Your task to perform on an android device: Go to battery settings Image 0: 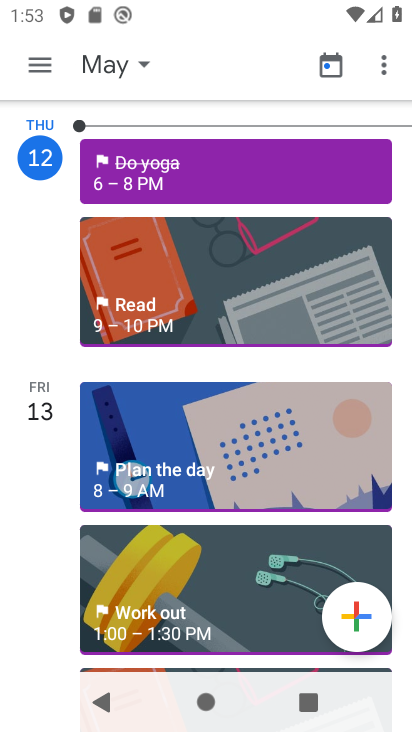
Step 0: press home button
Your task to perform on an android device: Go to battery settings Image 1: 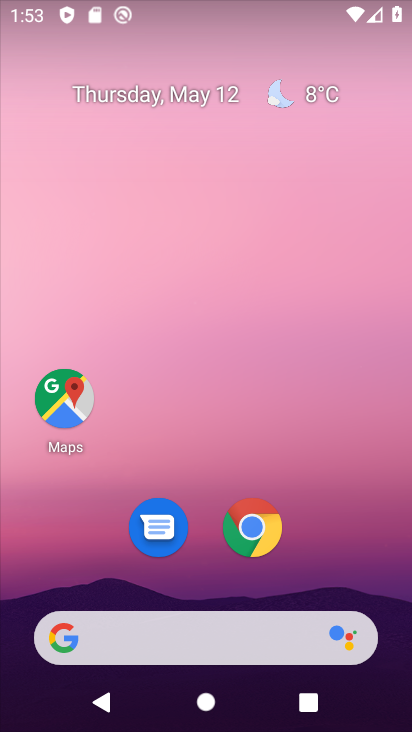
Step 1: drag from (74, 602) to (232, 82)
Your task to perform on an android device: Go to battery settings Image 2: 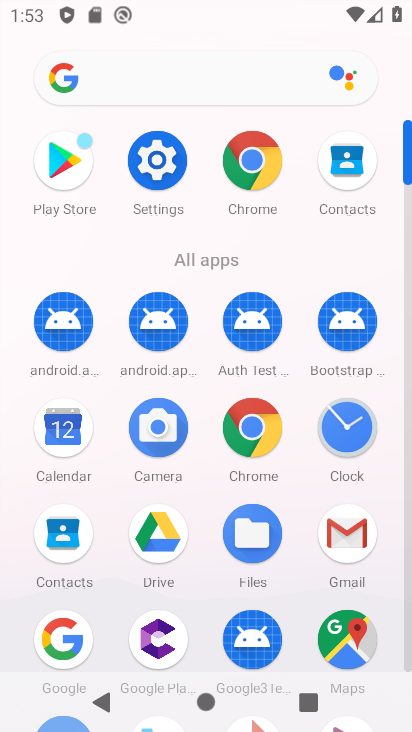
Step 2: drag from (195, 657) to (233, 394)
Your task to perform on an android device: Go to battery settings Image 3: 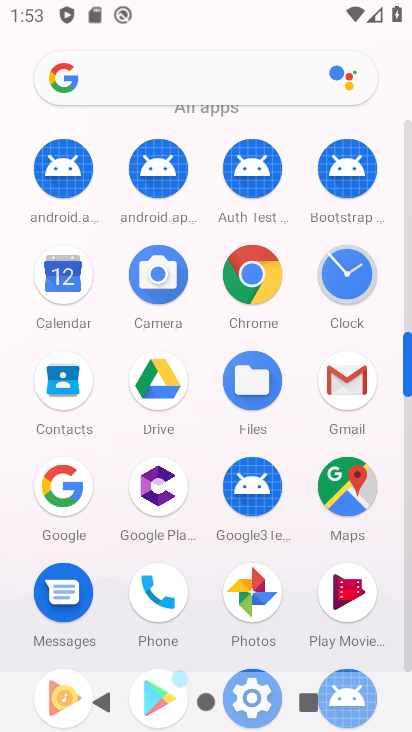
Step 3: drag from (258, 661) to (304, 442)
Your task to perform on an android device: Go to battery settings Image 4: 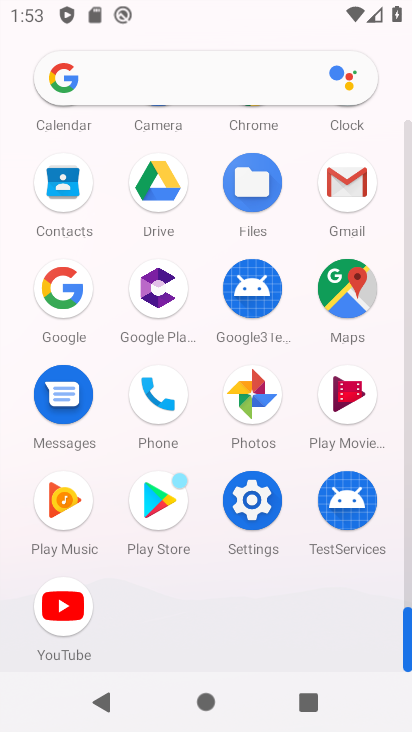
Step 4: click (254, 523)
Your task to perform on an android device: Go to battery settings Image 5: 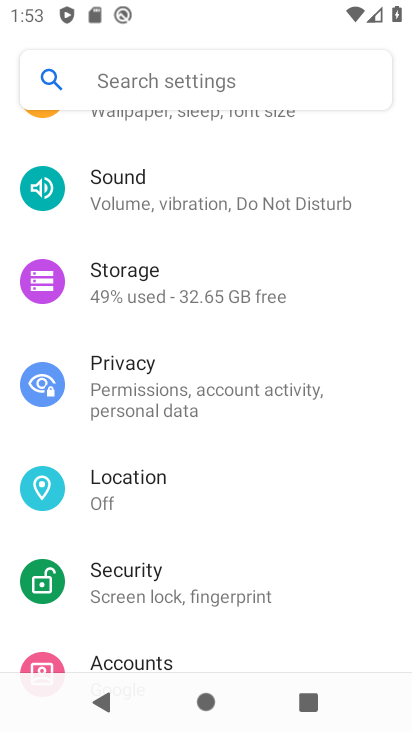
Step 5: drag from (176, 609) to (268, 682)
Your task to perform on an android device: Go to battery settings Image 6: 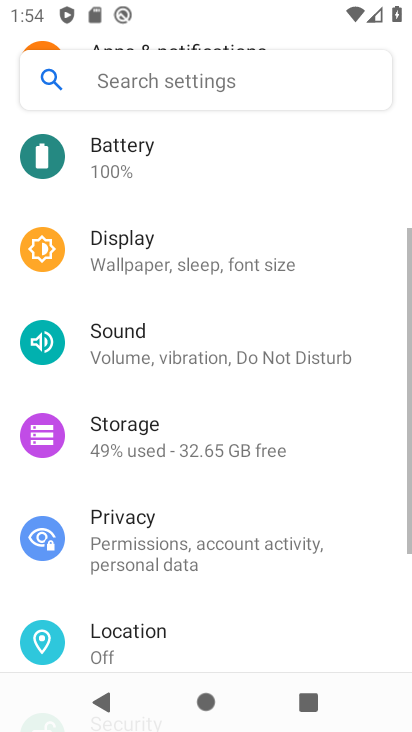
Step 6: click (207, 168)
Your task to perform on an android device: Go to battery settings Image 7: 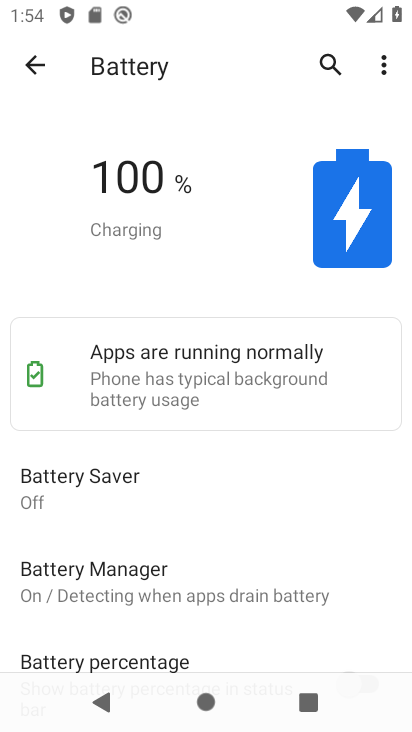
Step 7: task complete